Your task to perform on an android device: Find coffee shops on Maps Image 0: 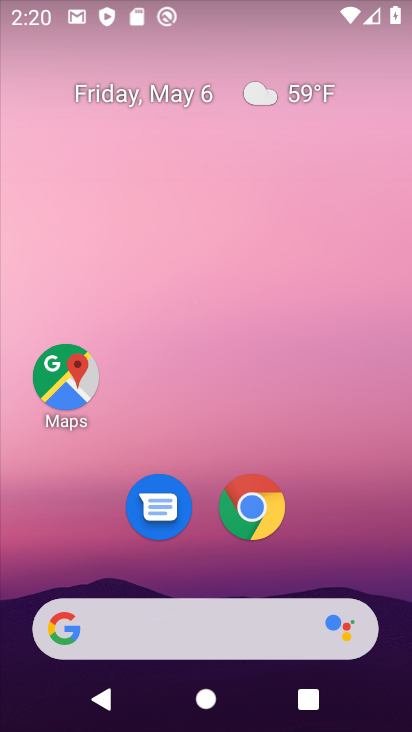
Step 0: click (80, 391)
Your task to perform on an android device: Find coffee shops on Maps Image 1: 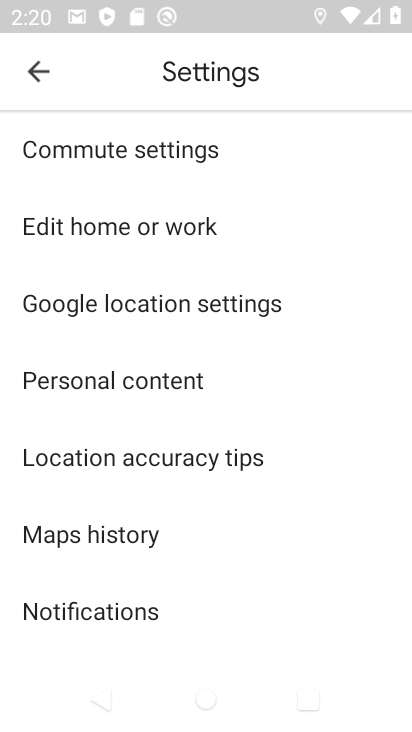
Step 1: press back button
Your task to perform on an android device: Find coffee shops on Maps Image 2: 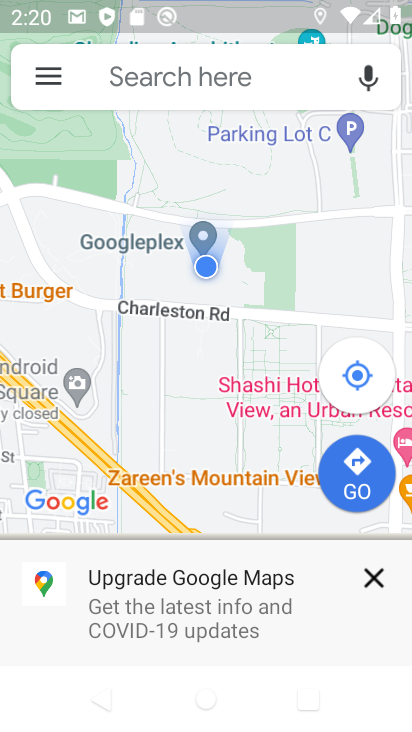
Step 2: click (148, 68)
Your task to perform on an android device: Find coffee shops on Maps Image 3: 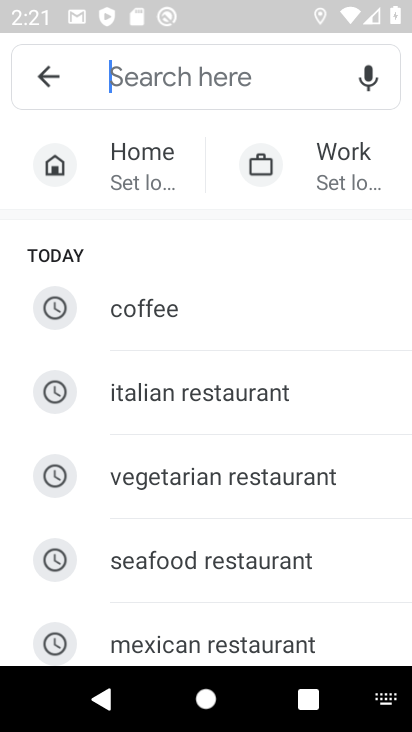
Step 3: type "coffee shops"
Your task to perform on an android device: Find coffee shops on Maps Image 4: 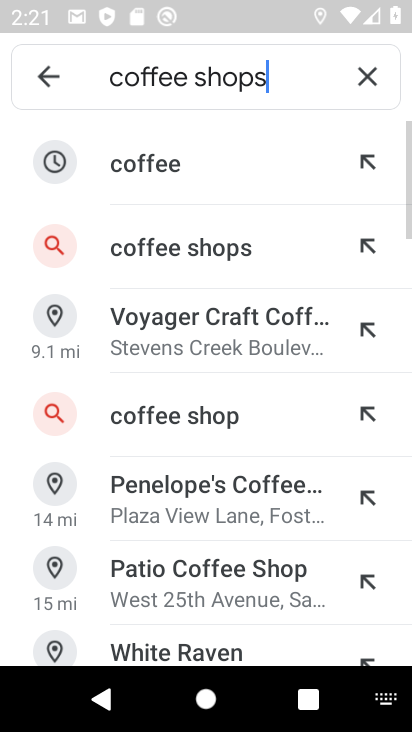
Step 4: click (214, 244)
Your task to perform on an android device: Find coffee shops on Maps Image 5: 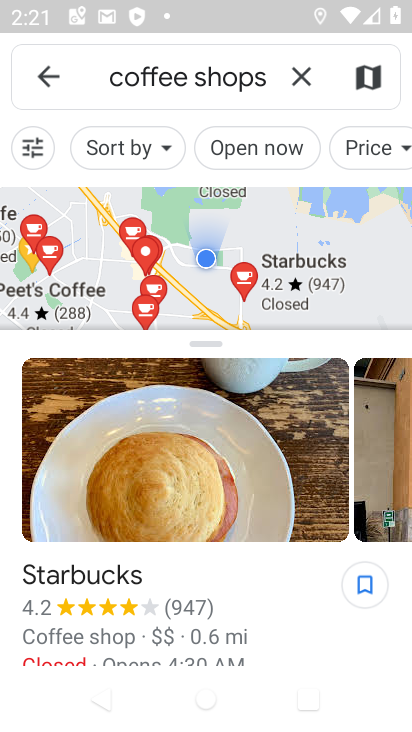
Step 5: task complete